Your task to perform on an android device: Open network settings Image 0: 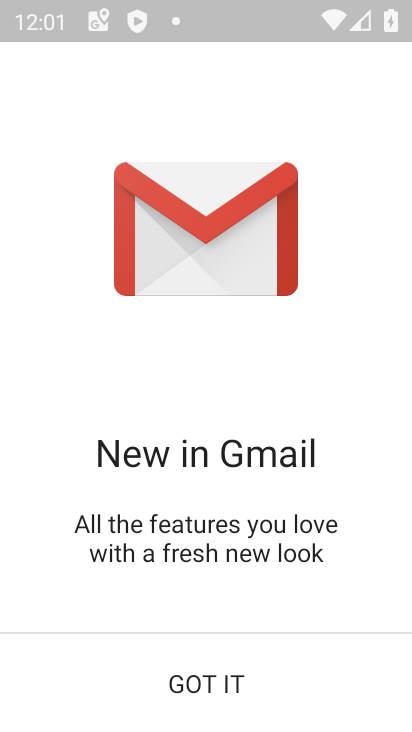
Step 0: drag from (265, 556) to (248, 134)
Your task to perform on an android device: Open network settings Image 1: 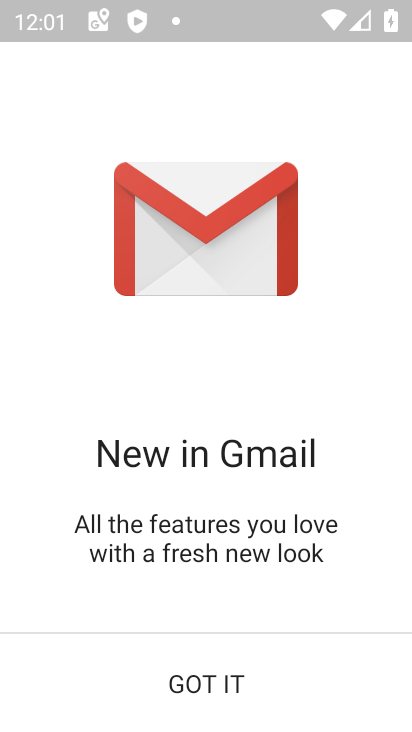
Step 1: press home button
Your task to perform on an android device: Open network settings Image 2: 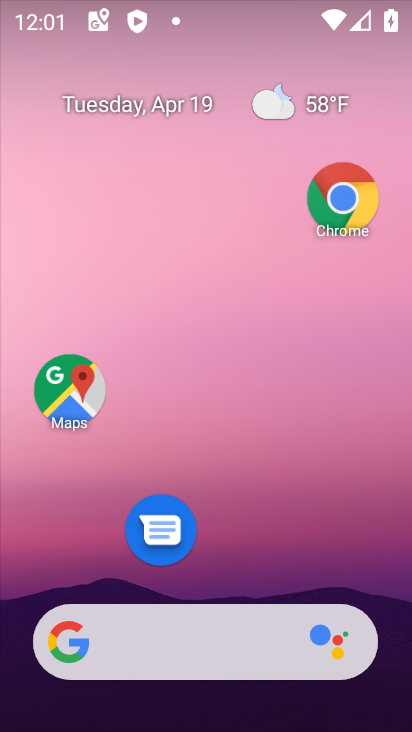
Step 2: drag from (265, 566) to (246, 40)
Your task to perform on an android device: Open network settings Image 3: 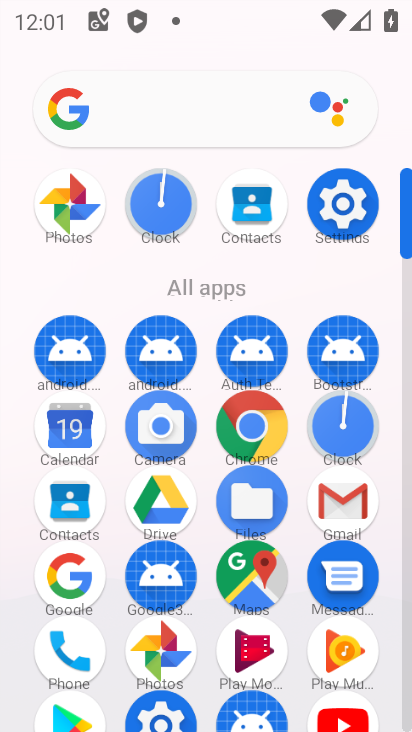
Step 3: click (348, 209)
Your task to perform on an android device: Open network settings Image 4: 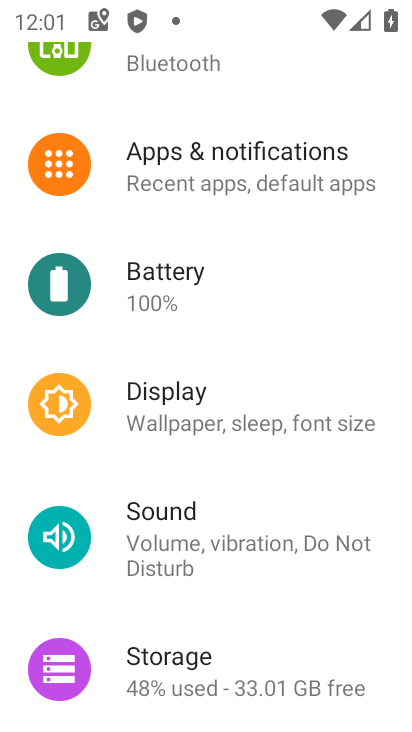
Step 4: drag from (238, 228) to (285, 666)
Your task to perform on an android device: Open network settings Image 5: 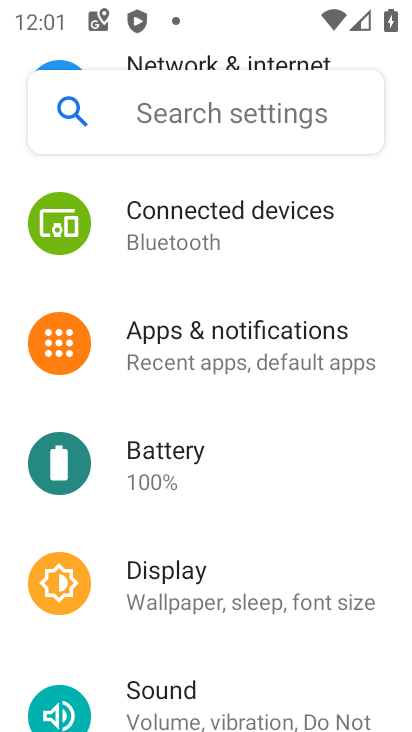
Step 5: drag from (228, 176) to (266, 627)
Your task to perform on an android device: Open network settings Image 6: 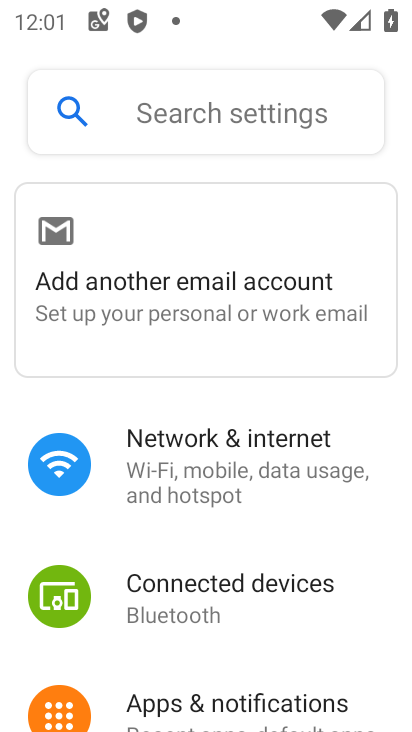
Step 6: click (256, 460)
Your task to perform on an android device: Open network settings Image 7: 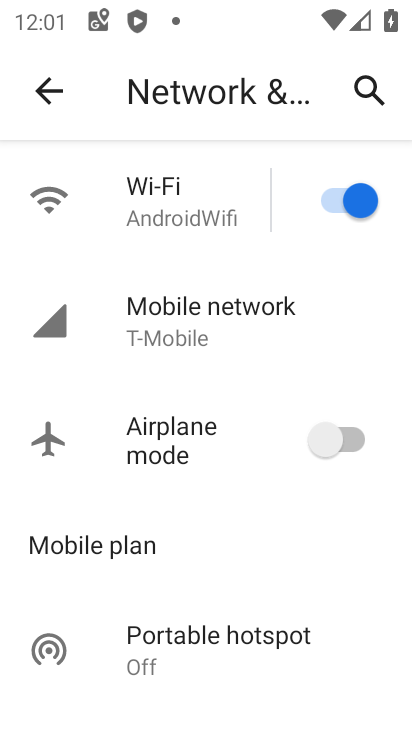
Step 7: click (207, 323)
Your task to perform on an android device: Open network settings Image 8: 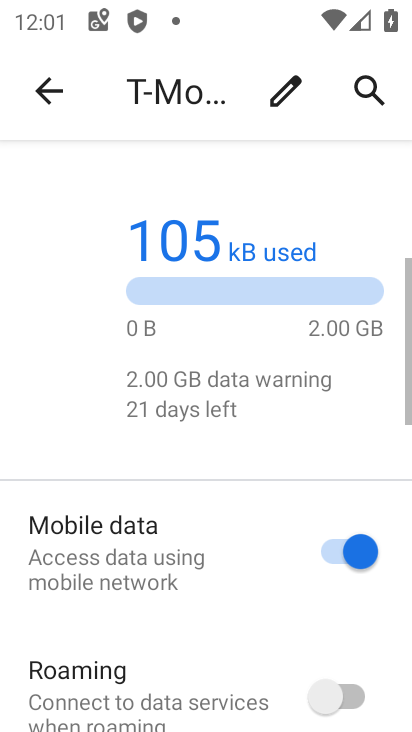
Step 8: drag from (254, 567) to (269, 162)
Your task to perform on an android device: Open network settings Image 9: 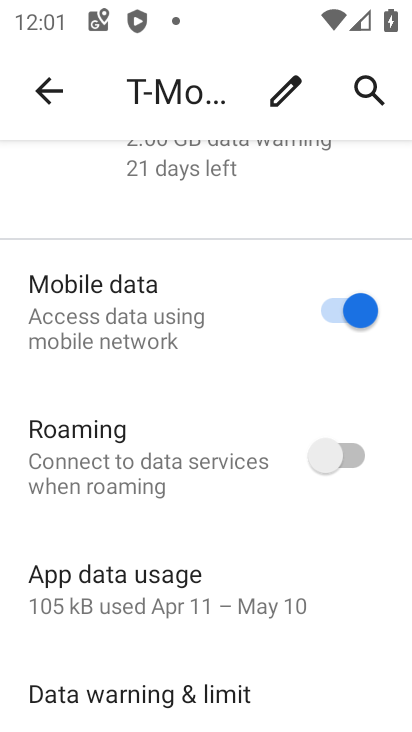
Step 9: drag from (264, 549) to (238, 242)
Your task to perform on an android device: Open network settings Image 10: 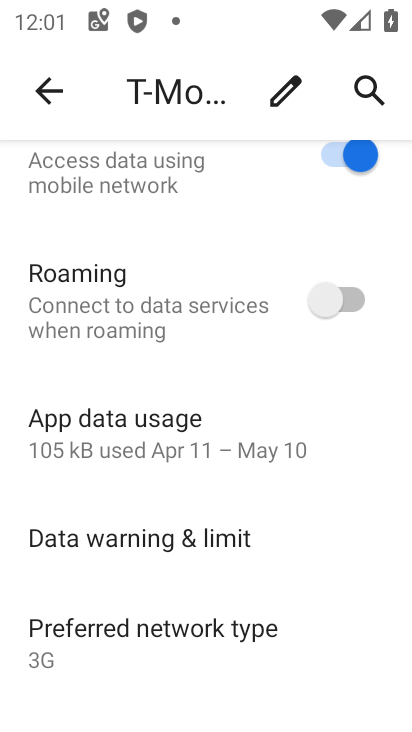
Step 10: drag from (217, 664) to (241, 218)
Your task to perform on an android device: Open network settings Image 11: 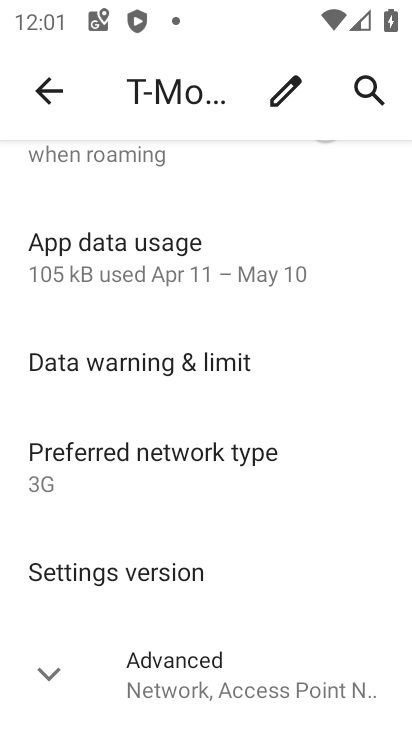
Step 11: click (220, 638)
Your task to perform on an android device: Open network settings Image 12: 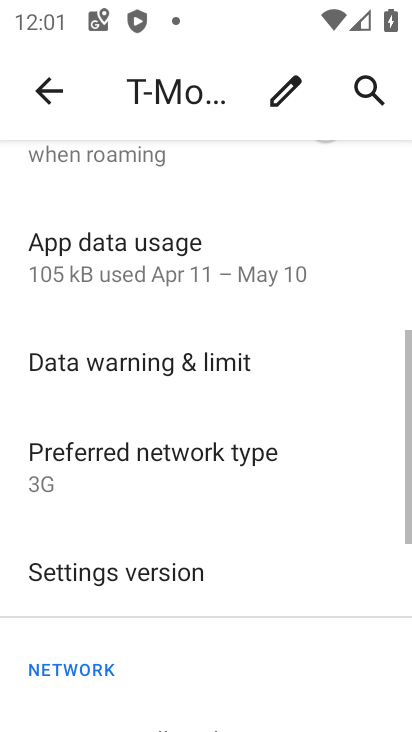
Step 12: task complete